Your task to perform on an android device: Search for seafood restaurants on Google Maps Image 0: 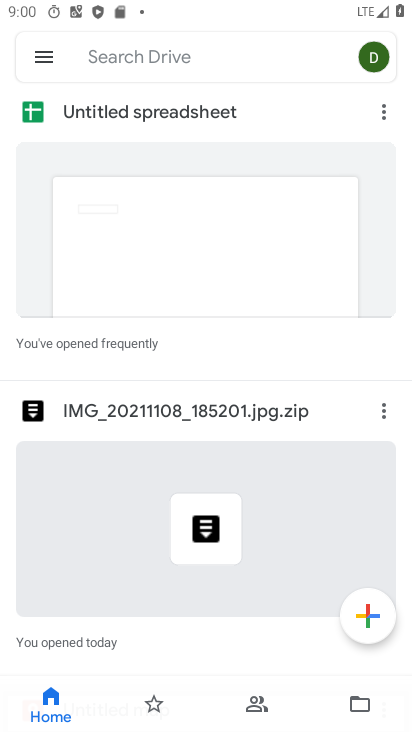
Step 0: press back button
Your task to perform on an android device: Search for seafood restaurants on Google Maps Image 1: 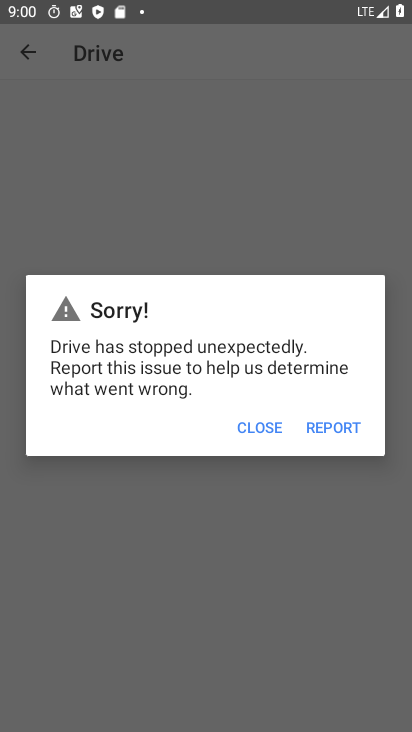
Step 1: press back button
Your task to perform on an android device: Search for seafood restaurants on Google Maps Image 2: 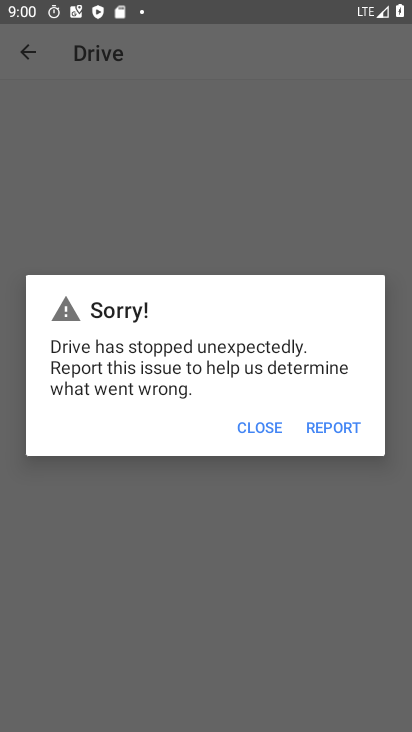
Step 2: press home button
Your task to perform on an android device: Search for seafood restaurants on Google Maps Image 3: 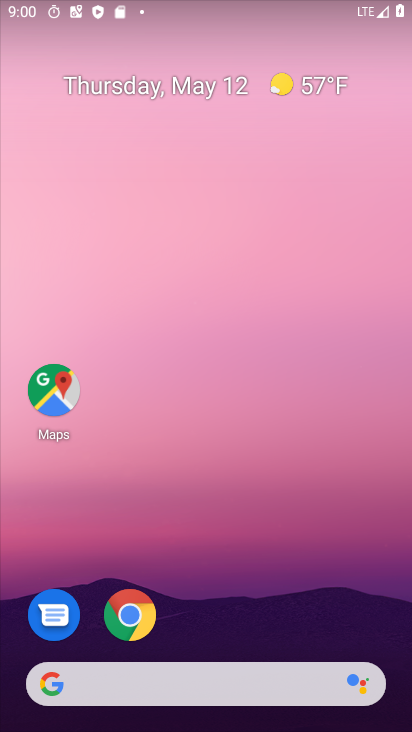
Step 3: drag from (270, 566) to (232, 68)
Your task to perform on an android device: Search for seafood restaurants on Google Maps Image 4: 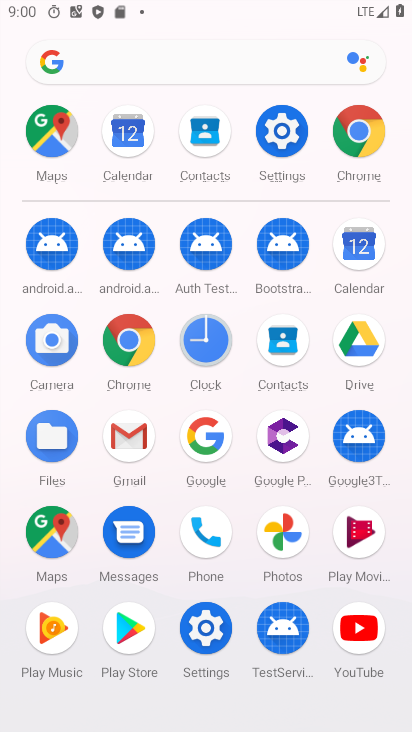
Step 4: drag from (0, 573) to (0, 276)
Your task to perform on an android device: Search for seafood restaurants on Google Maps Image 5: 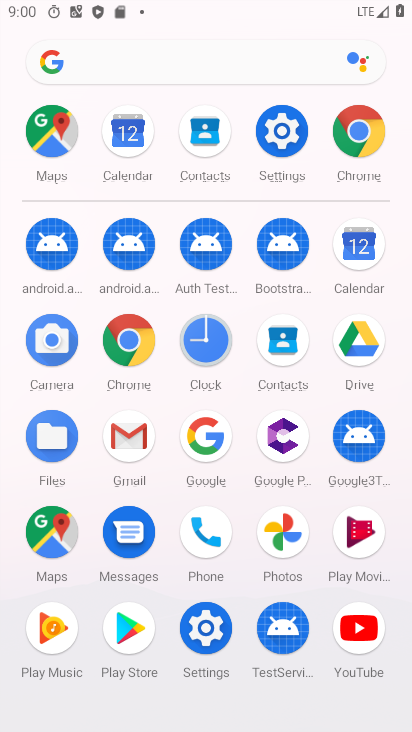
Step 5: click (45, 530)
Your task to perform on an android device: Search for seafood restaurants on Google Maps Image 6: 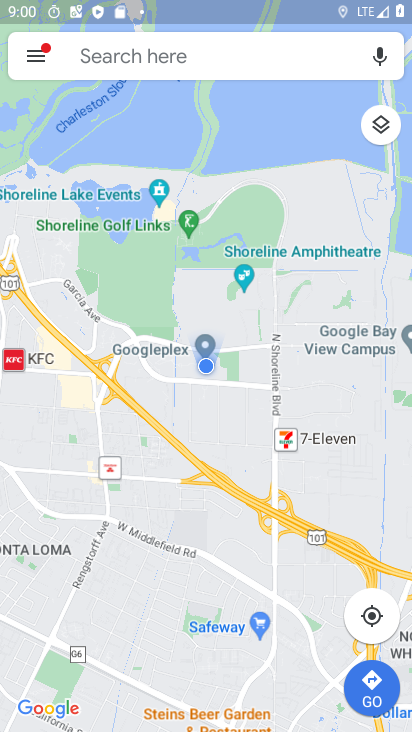
Step 6: click (204, 56)
Your task to perform on an android device: Search for seafood restaurants on Google Maps Image 7: 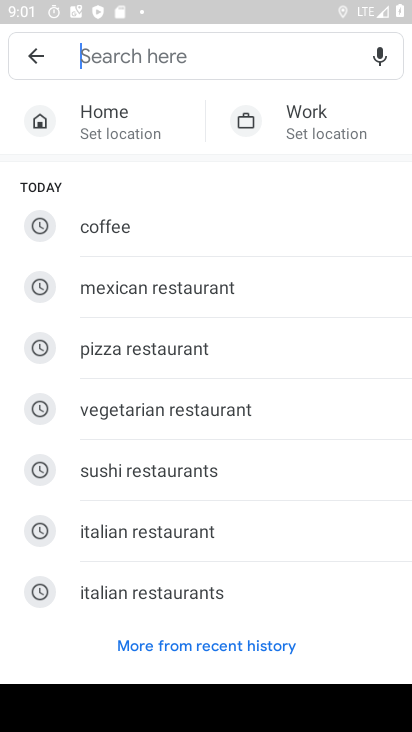
Step 7: drag from (298, 524) to (271, 242)
Your task to perform on an android device: Search for seafood restaurants on Google Maps Image 8: 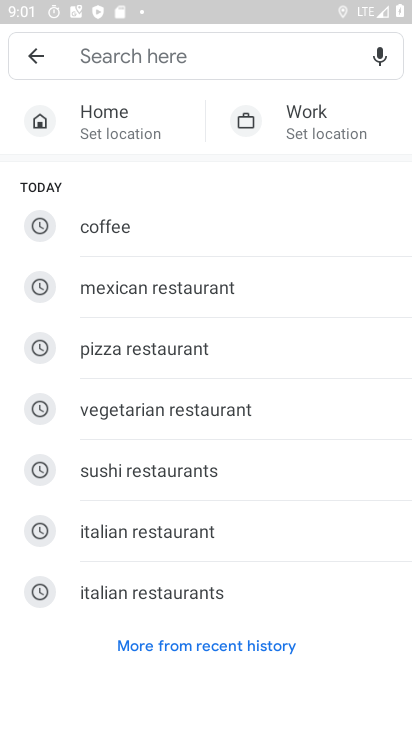
Step 8: click (192, 49)
Your task to perform on an android device: Search for seafood restaurants on Google Maps Image 9: 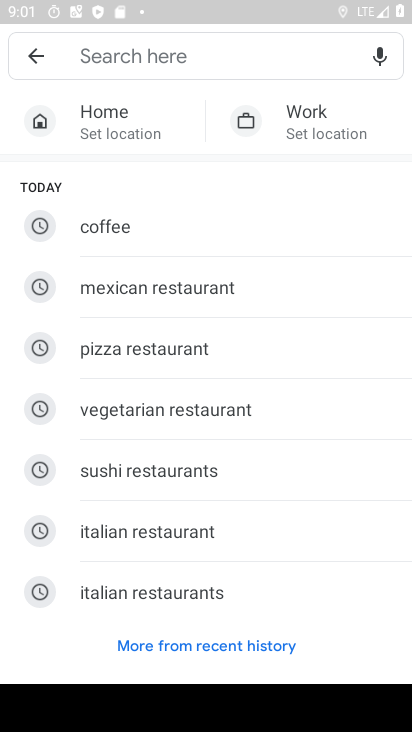
Step 9: type "seafood restaurants "
Your task to perform on an android device: Search for seafood restaurants on Google Maps Image 10: 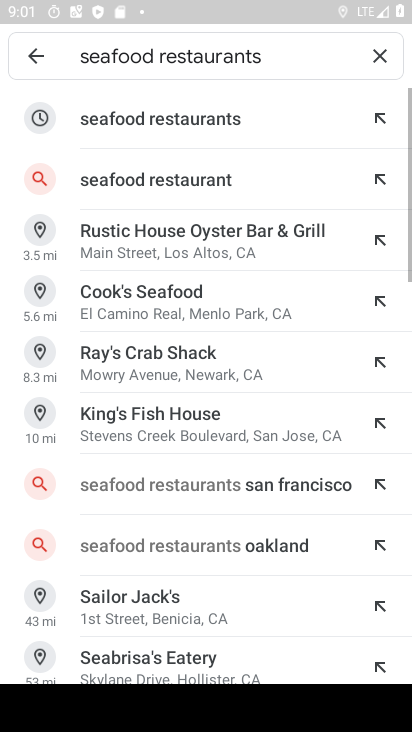
Step 10: click (177, 123)
Your task to perform on an android device: Search for seafood restaurants on Google Maps Image 11: 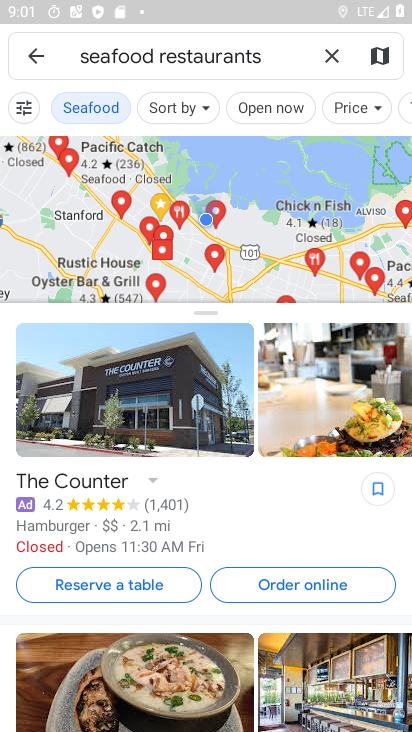
Step 11: task complete